Your task to perform on an android device: stop showing notifications on the lock screen Image 0: 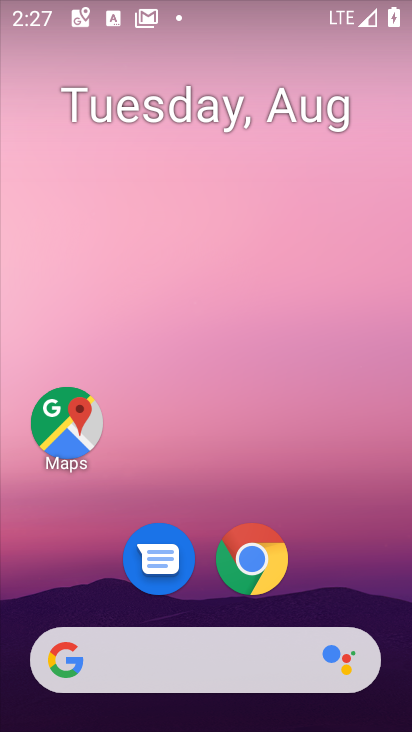
Step 0: drag from (194, 407) to (141, 114)
Your task to perform on an android device: stop showing notifications on the lock screen Image 1: 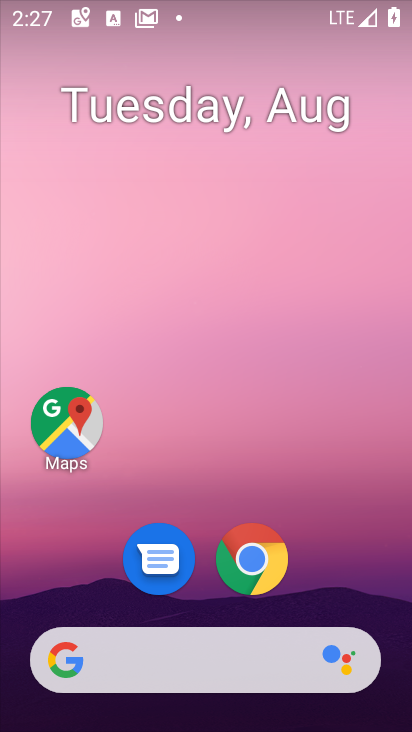
Step 1: drag from (200, 491) to (163, 122)
Your task to perform on an android device: stop showing notifications on the lock screen Image 2: 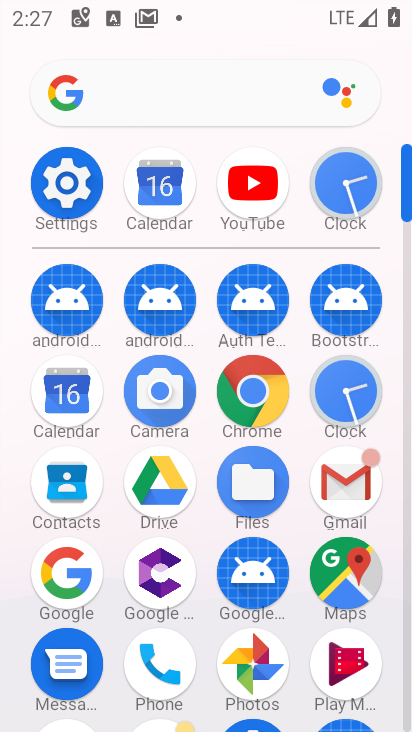
Step 2: click (92, 195)
Your task to perform on an android device: stop showing notifications on the lock screen Image 3: 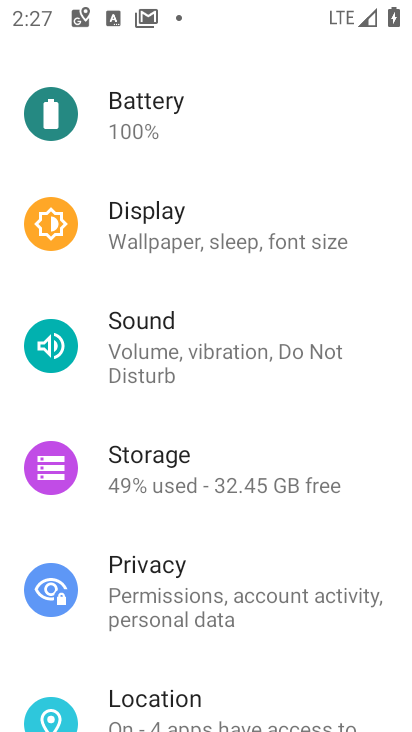
Step 3: drag from (233, 216) to (253, 505)
Your task to perform on an android device: stop showing notifications on the lock screen Image 4: 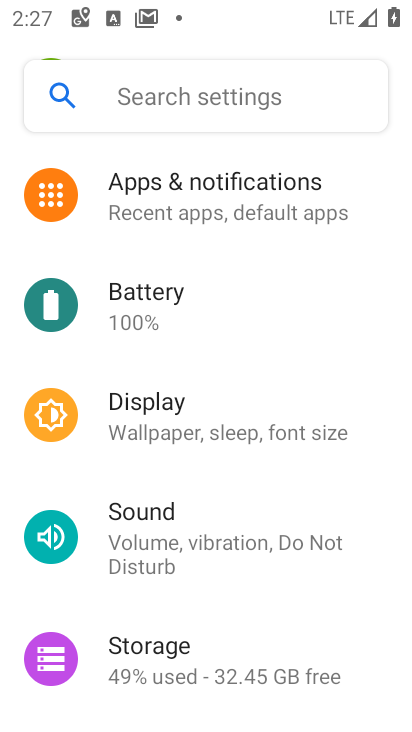
Step 4: click (252, 208)
Your task to perform on an android device: stop showing notifications on the lock screen Image 5: 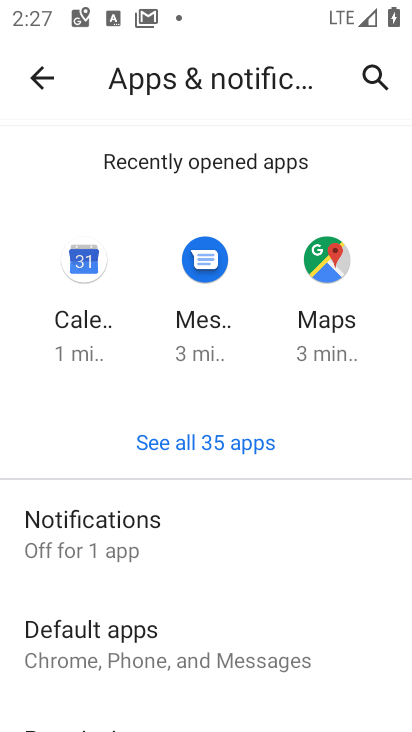
Step 5: click (162, 533)
Your task to perform on an android device: stop showing notifications on the lock screen Image 6: 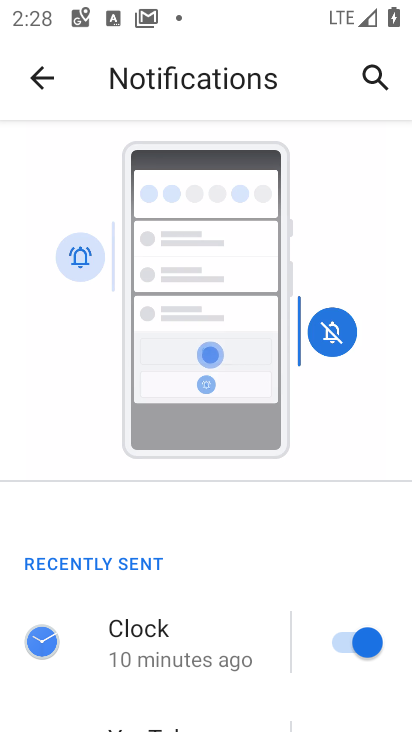
Step 6: drag from (197, 620) to (215, 315)
Your task to perform on an android device: stop showing notifications on the lock screen Image 7: 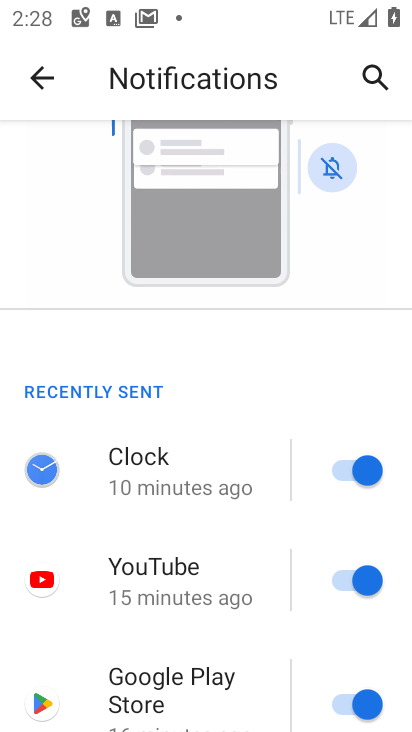
Step 7: drag from (226, 628) to (226, 293)
Your task to perform on an android device: stop showing notifications on the lock screen Image 8: 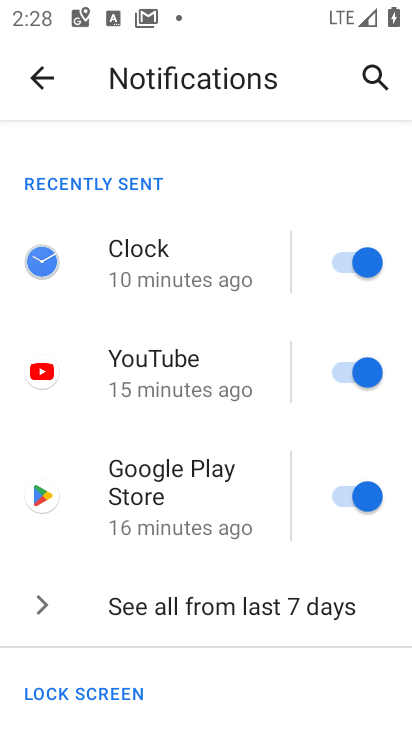
Step 8: drag from (255, 602) to (223, 301)
Your task to perform on an android device: stop showing notifications on the lock screen Image 9: 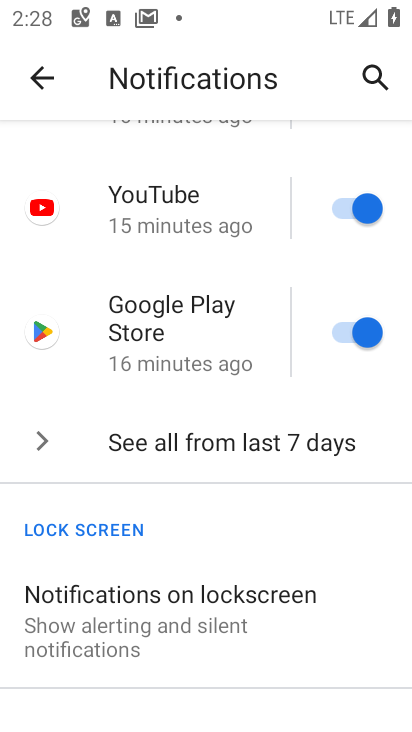
Step 9: click (234, 594)
Your task to perform on an android device: stop showing notifications on the lock screen Image 10: 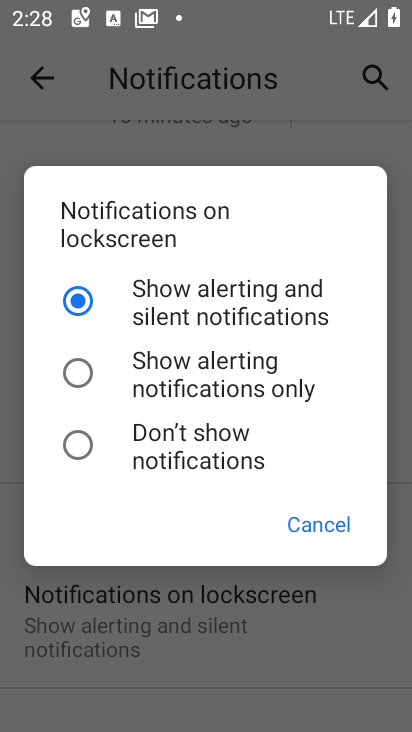
Step 10: click (149, 425)
Your task to perform on an android device: stop showing notifications on the lock screen Image 11: 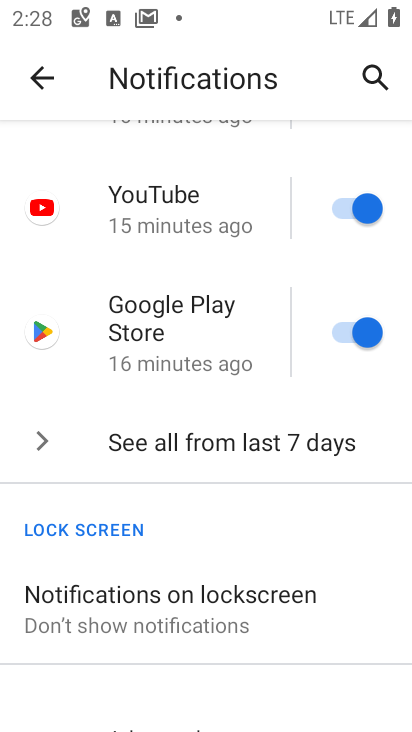
Step 11: task complete